Your task to perform on an android device: change the upload size in google photos Image 0: 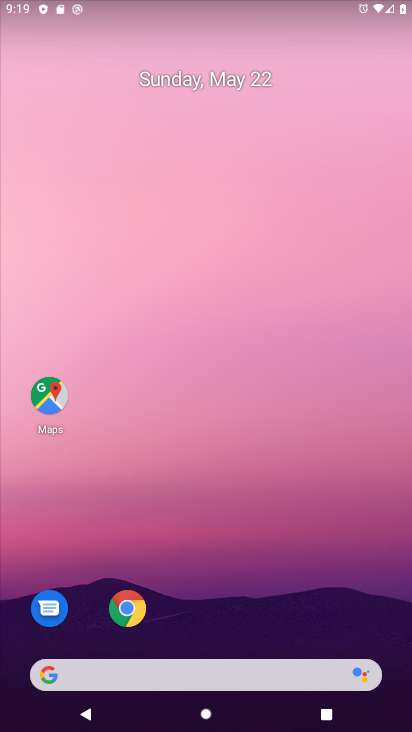
Step 0: drag from (219, 552) to (190, 45)
Your task to perform on an android device: change the upload size in google photos Image 1: 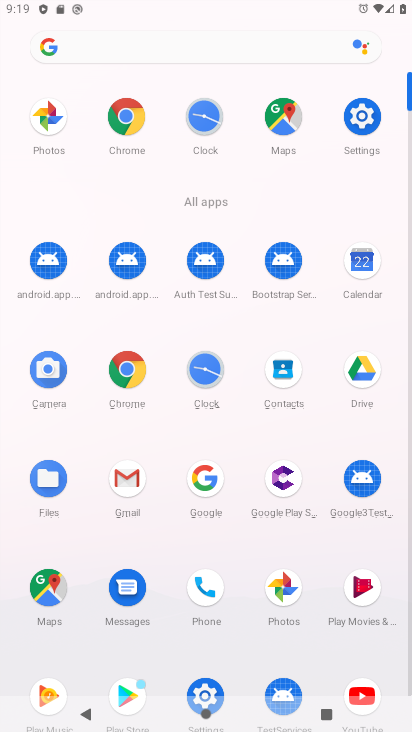
Step 1: click (280, 586)
Your task to perform on an android device: change the upload size in google photos Image 2: 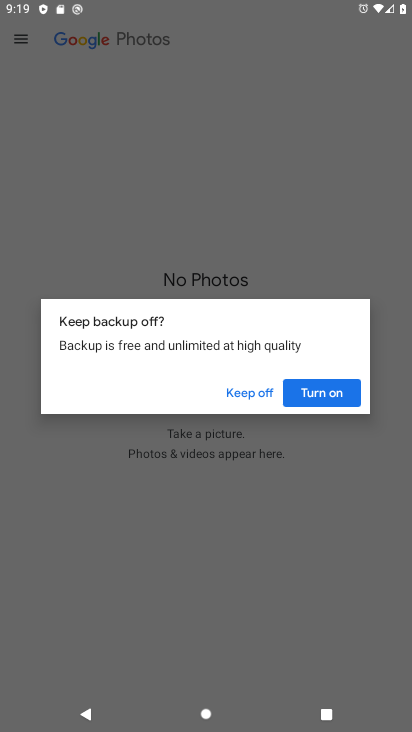
Step 2: click (331, 387)
Your task to perform on an android device: change the upload size in google photos Image 3: 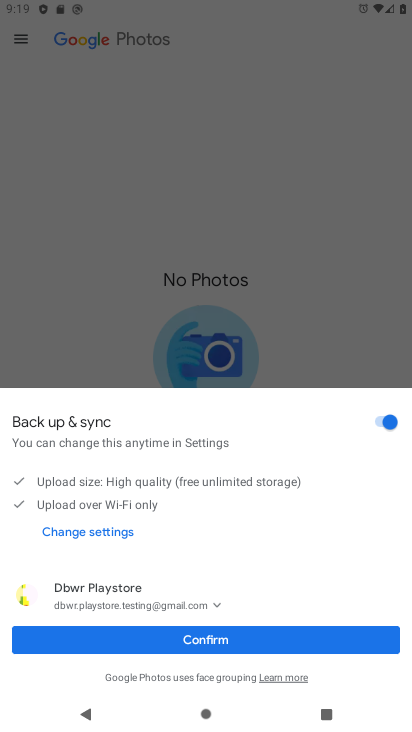
Step 3: click (234, 638)
Your task to perform on an android device: change the upload size in google photos Image 4: 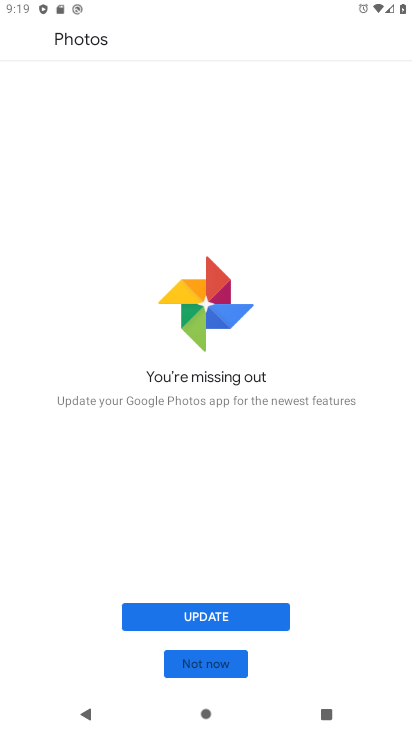
Step 4: click (219, 612)
Your task to perform on an android device: change the upload size in google photos Image 5: 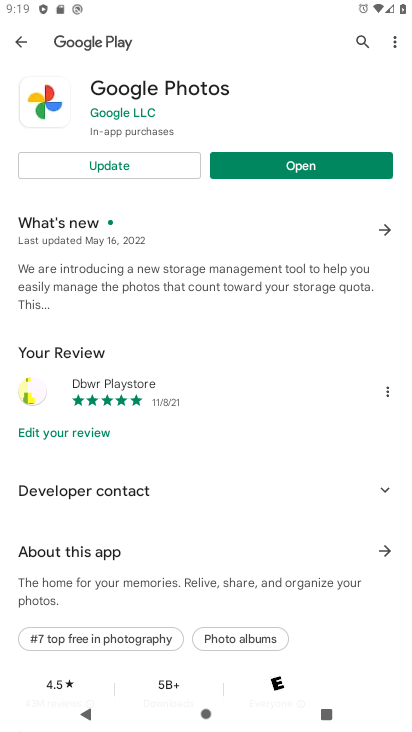
Step 5: click (132, 159)
Your task to perform on an android device: change the upload size in google photos Image 6: 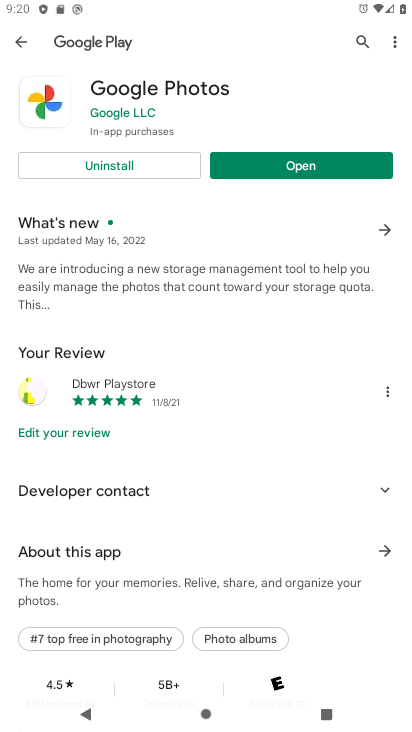
Step 6: click (364, 162)
Your task to perform on an android device: change the upload size in google photos Image 7: 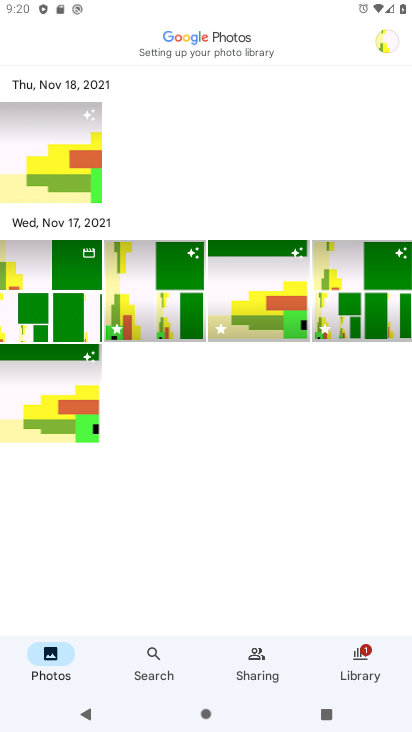
Step 7: click (384, 41)
Your task to perform on an android device: change the upload size in google photos Image 8: 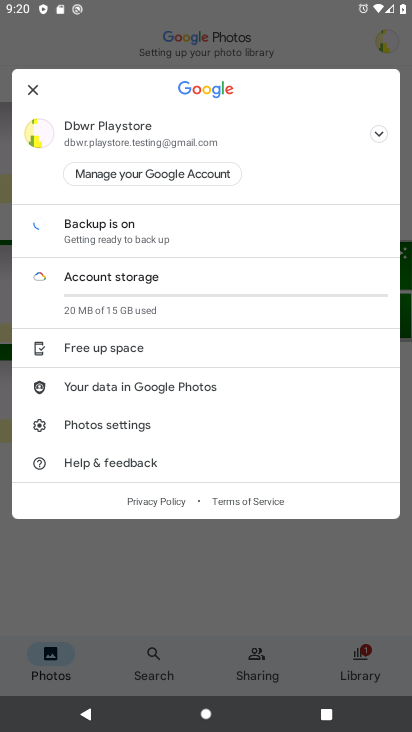
Step 8: click (98, 428)
Your task to perform on an android device: change the upload size in google photos Image 9: 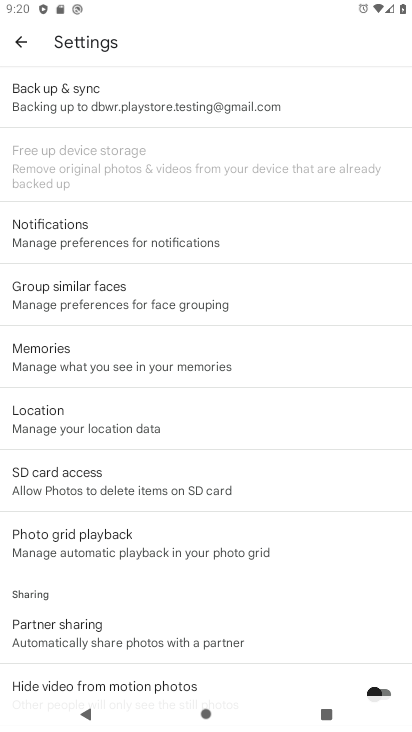
Step 9: drag from (197, 556) to (257, 133)
Your task to perform on an android device: change the upload size in google photos Image 10: 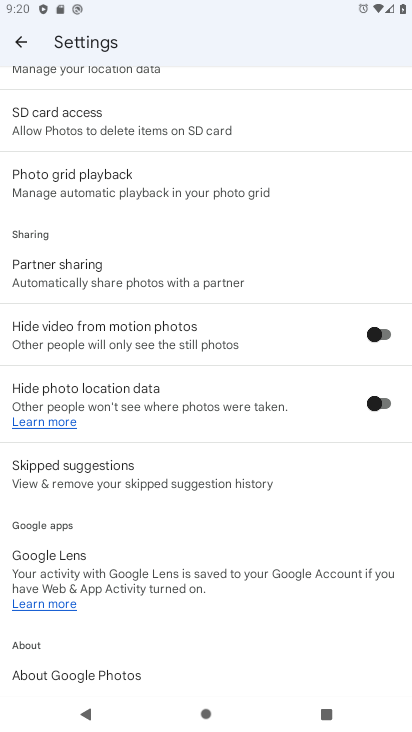
Step 10: drag from (248, 153) to (256, 81)
Your task to perform on an android device: change the upload size in google photos Image 11: 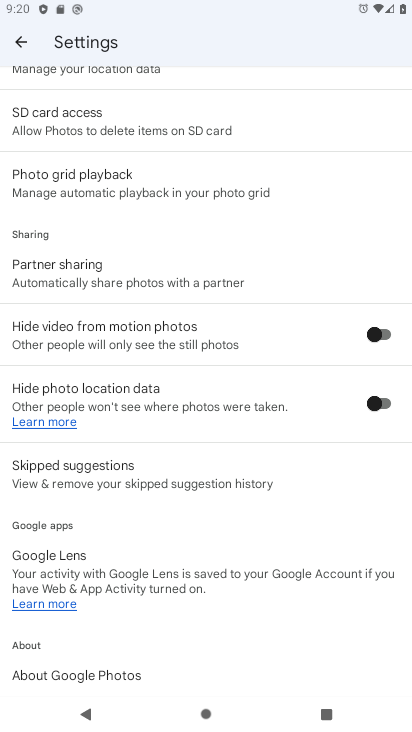
Step 11: drag from (250, 188) to (207, 656)
Your task to perform on an android device: change the upload size in google photos Image 12: 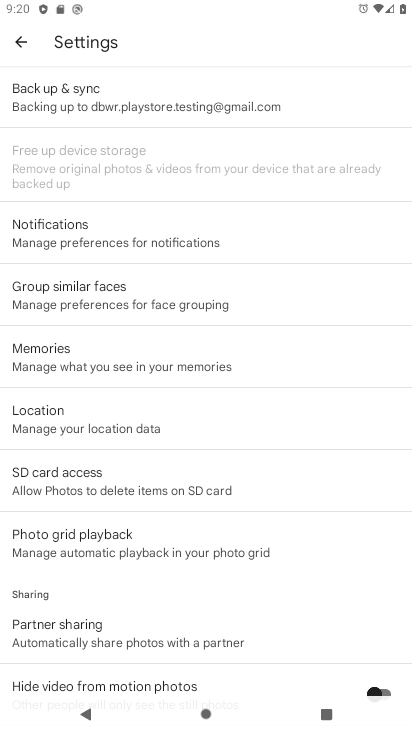
Step 12: click (104, 99)
Your task to perform on an android device: change the upload size in google photos Image 13: 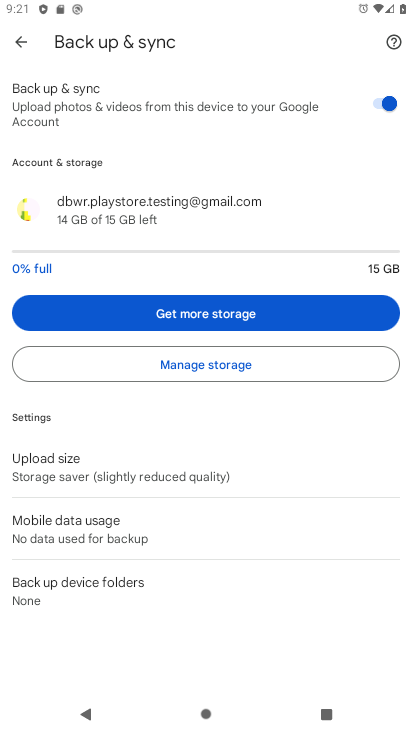
Step 13: click (147, 448)
Your task to perform on an android device: change the upload size in google photos Image 14: 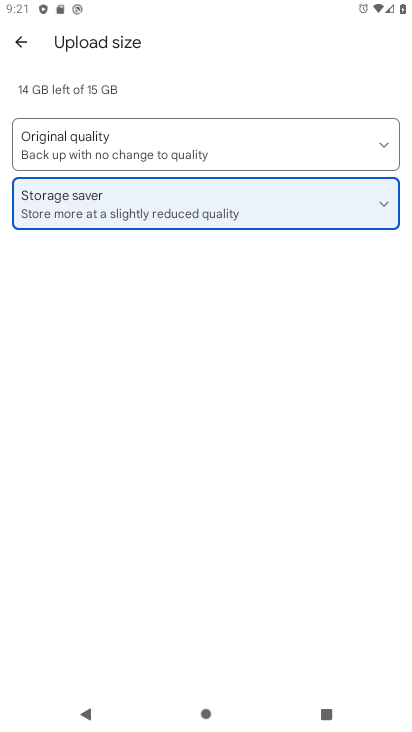
Step 14: click (102, 147)
Your task to perform on an android device: change the upload size in google photos Image 15: 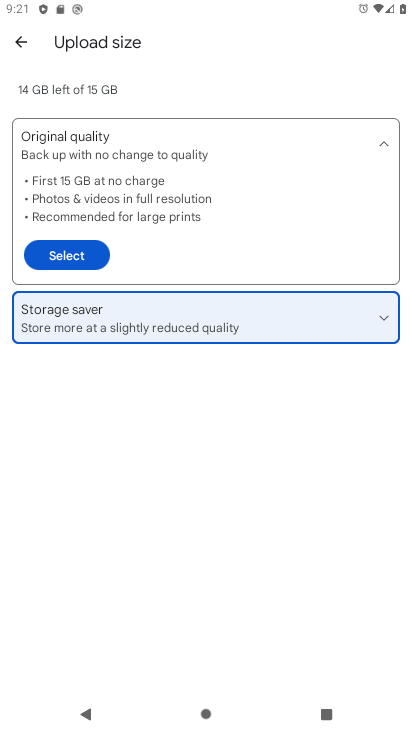
Step 15: click (75, 247)
Your task to perform on an android device: change the upload size in google photos Image 16: 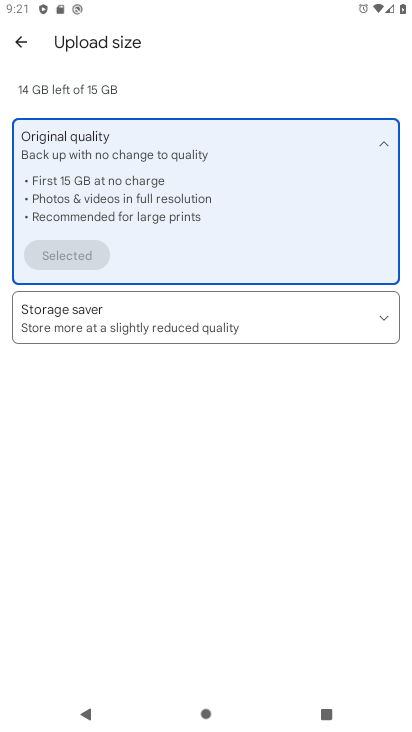
Step 16: task complete